Your task to perform on an android device: turn on data saver in the chrome app Image 0: 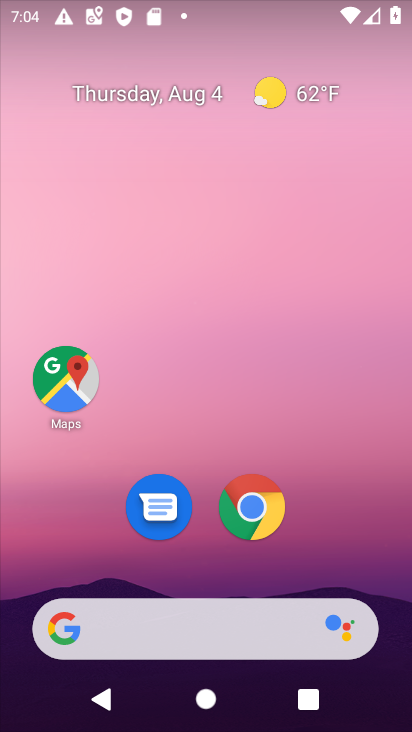
Step 0: drag from (383, 606) to (229, 65)
Your task to perform on an android device: turn on data saver in the chrome app Image 1: 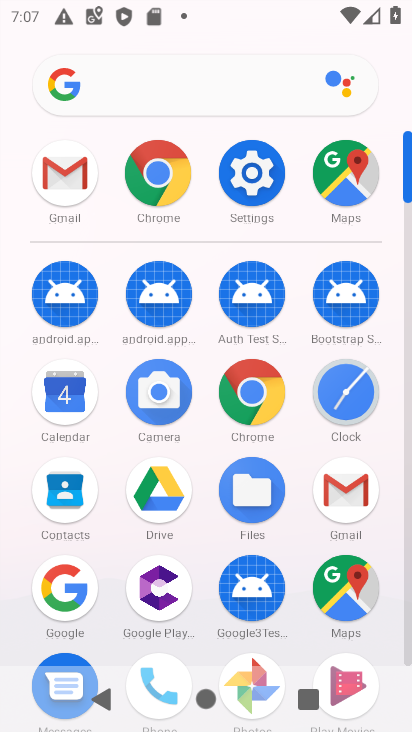
Step 1: click (237, 389)
Your task to perform on an android device: turn on data saver in the chrome app Image 2: 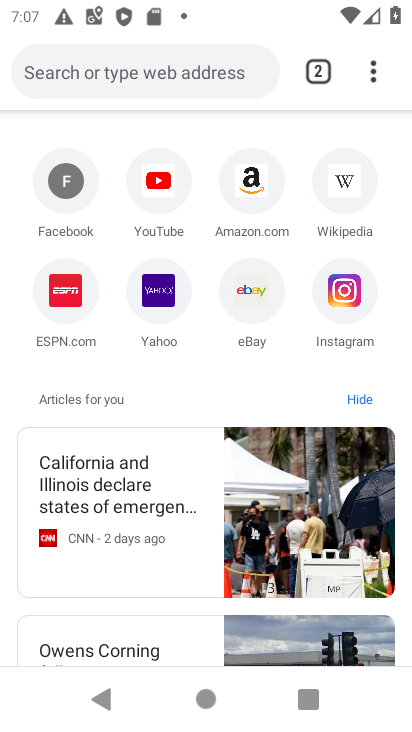
Step 2: click (373, 65)
Your task to perform on an android device: turn on data saver in the chrome app Image 3: 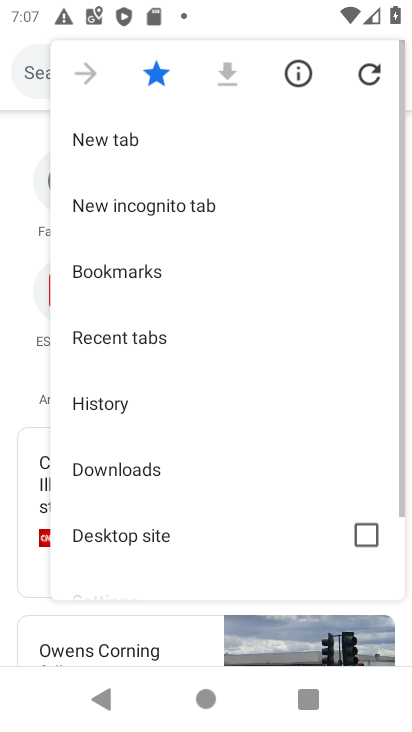
Step 3: drag from (138, 541) to (185, 80)
Your task to perform on an android device: turn on data saver in the chrome app Image 4: 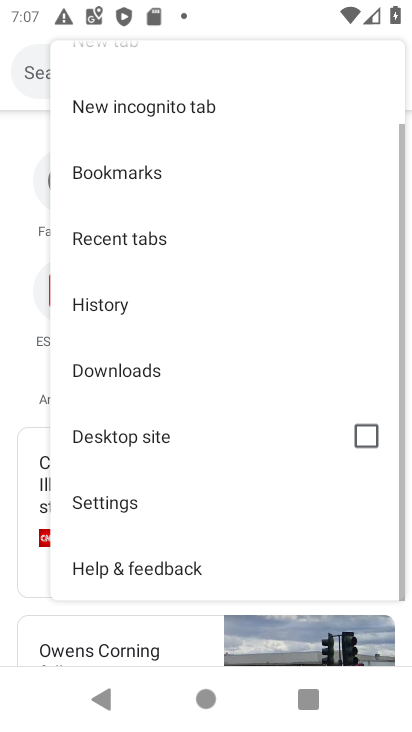
Step 4: click (133, 495)
Your task to perform on an android device: turn on data saver in the chrome app Image 5: 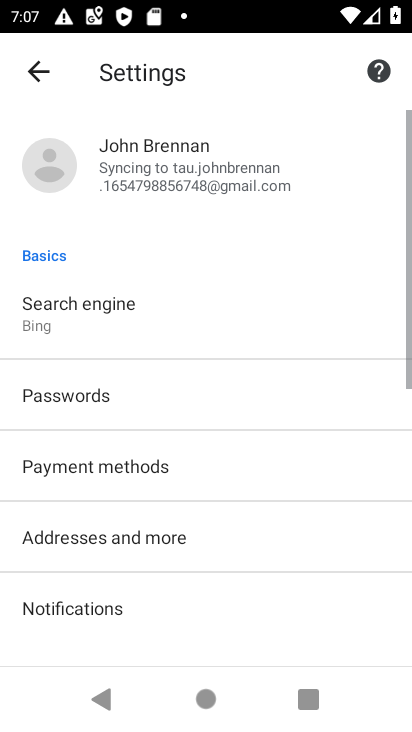
Step 5: drag from (137, 613) to (143, 48)
Your task to perform on an android device: turn on data saver in the chrome app Image 6: 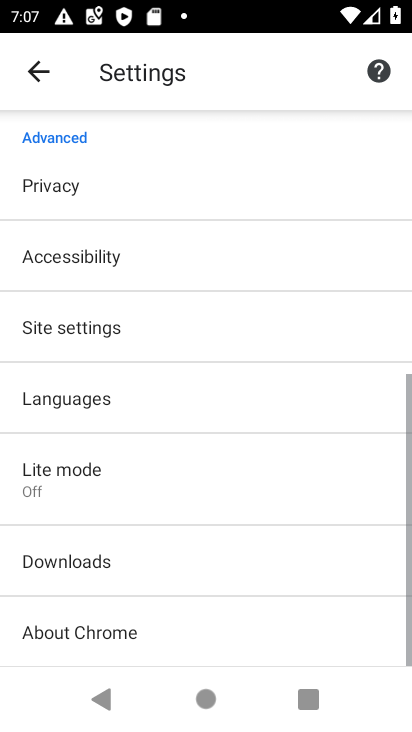
Step 6: drag from (107, 599) to (184, 102)
Your task to perform on an android device: turn on data saver in the chrome app Image 7: 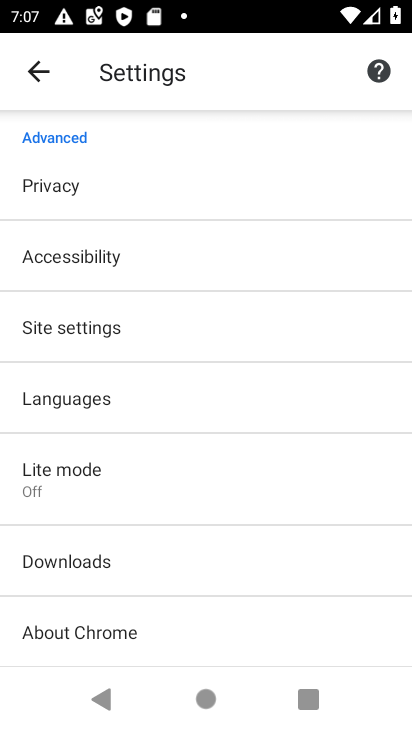
Step 7: click (88, 465)
Your task to perform on an android device: turn on data saver in the chrome app Image 8: 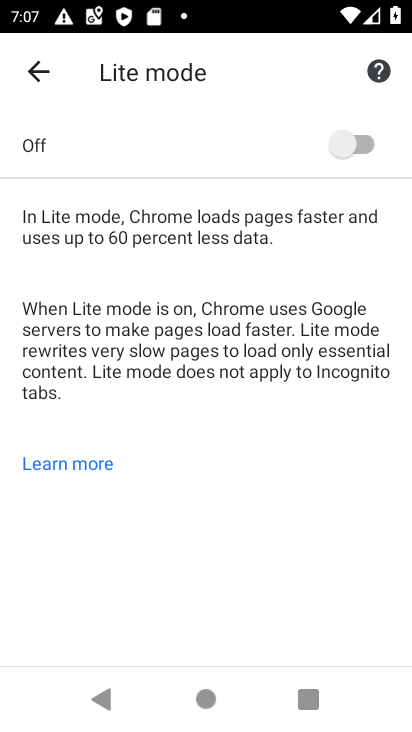
Step 8: click (353, 154)
Your task to perform on an android device: turn on data saver in the chrome app Image 9: 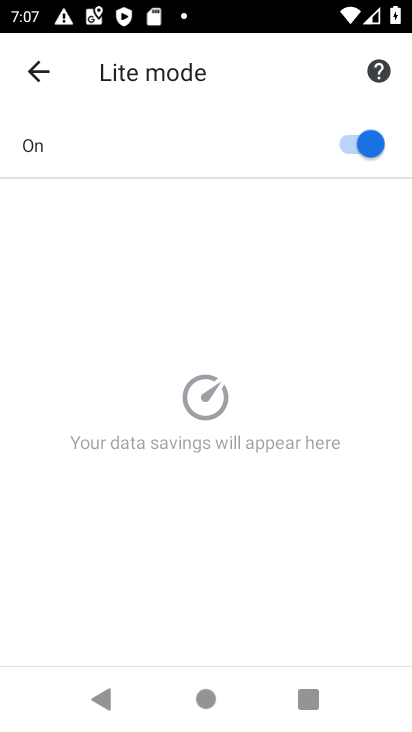
Step 9: task complete